Your task to perform on an android device: Open calendar and show me the third week of next month Image 0: 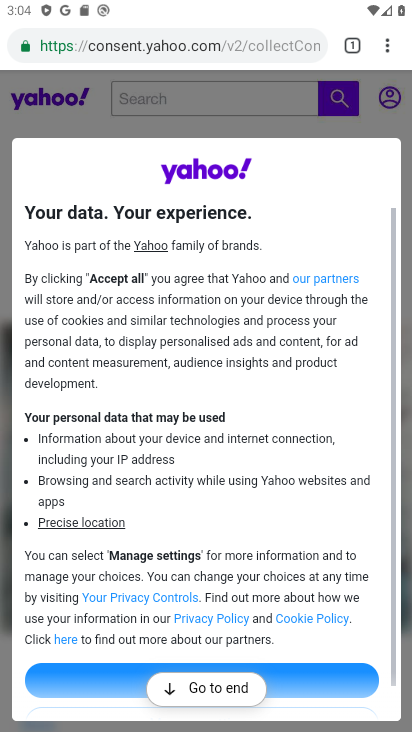
Step 0: press home button
Your task to perform on an android device: Open calendar and show me the third week of next month Image 1: 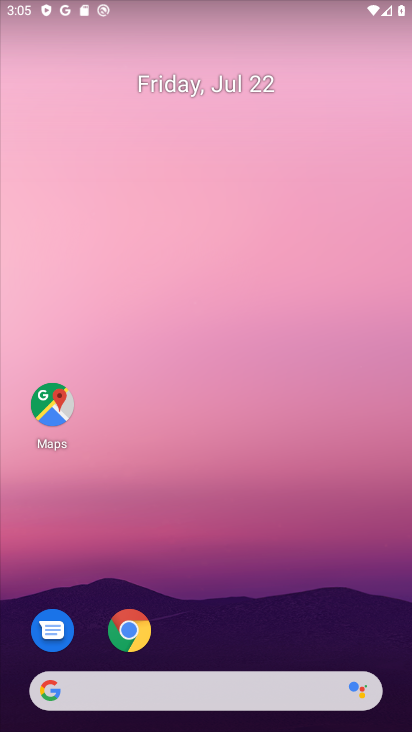
Step 1: drag from (225, 690) to (200, 166)
Your task to perform on an android device: Open calendar and show me the third week of next month Image 2: 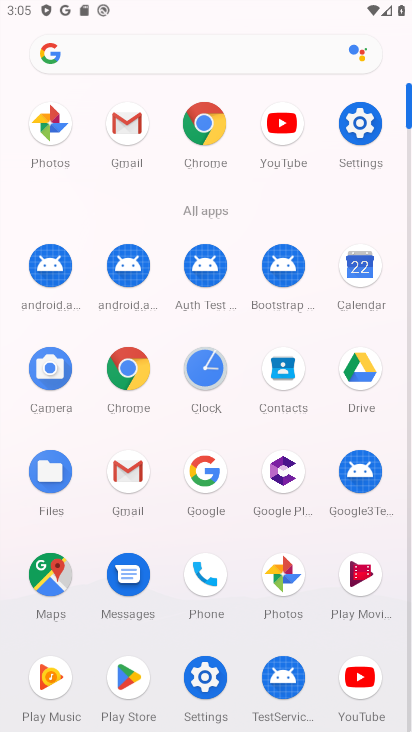
Step 2: click (347, 271)
Your task to perform on an android device: Open calendar and show me the third week of next month Image 3: 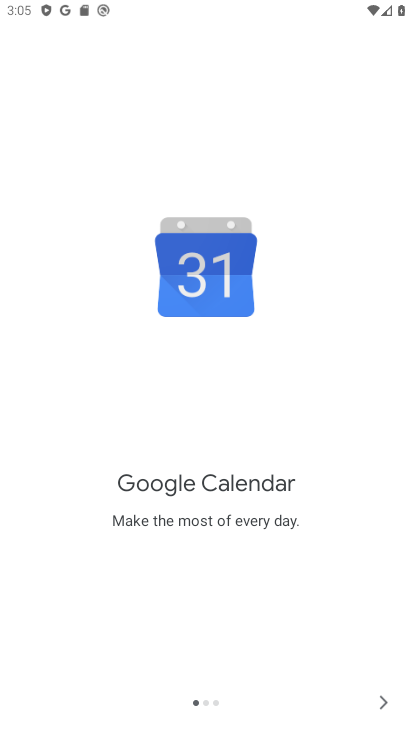
Step 3: click (381, 701)
Your task to perform on an android device: Open calendar and show me the third week of next month Image 4: 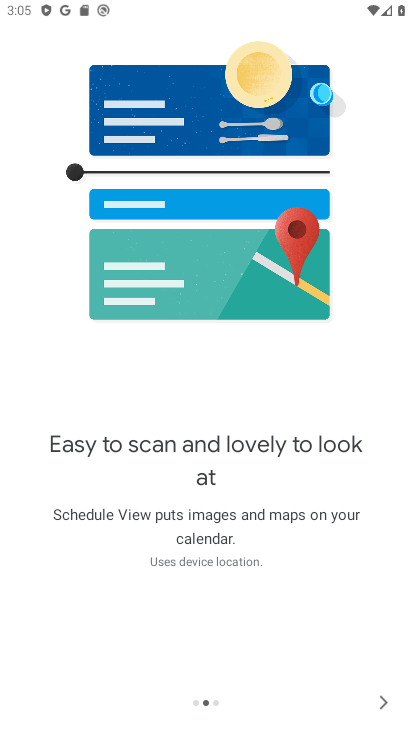
Step 4: click (381, 701)
Your task to perform on an android device: Open calendar and show me the third week of next month Image 5: 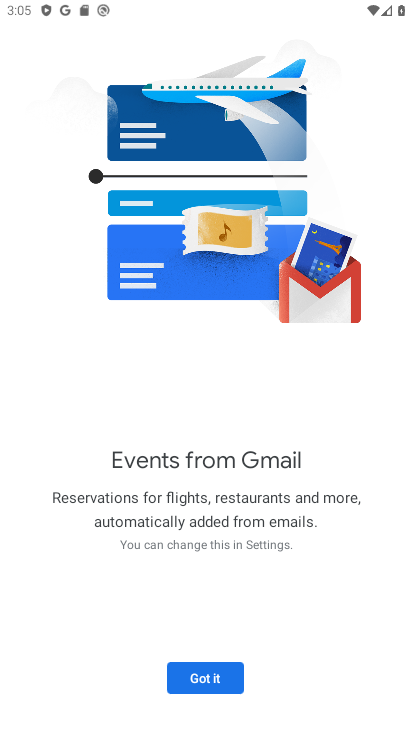
Step 5: click (203, 687)
Your task to perform on an android device: Open calendar and show me the third week of next month Image 6: 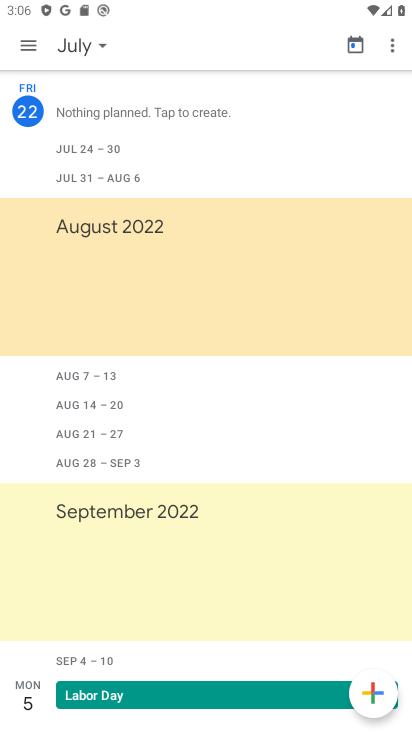
Step 6: click (25, 41)
Your task to perform on an android device: Open calendar and show me the third week of next month Image 7: 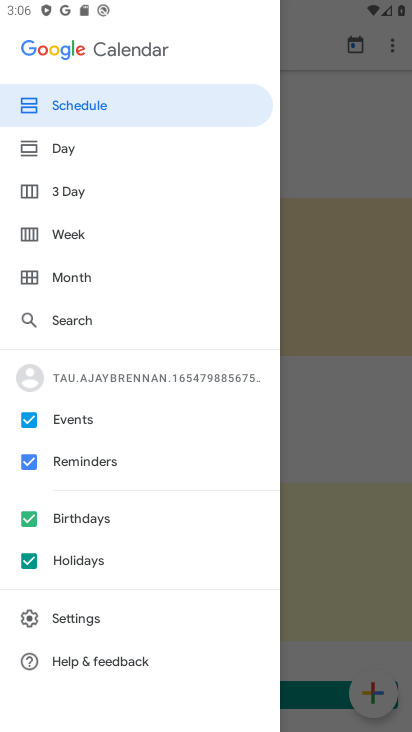
Step 7: click (75, 277)
Your task to perform on an android device: Open calendar and show me the third week of next month Image 8: 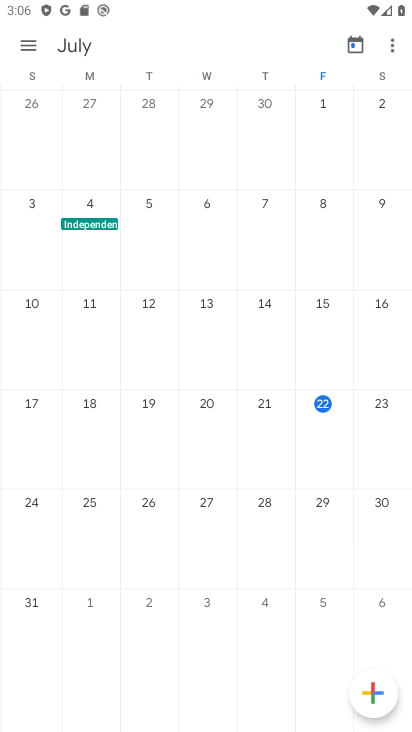
Step 8: task complete